Your task to perform on an android device: Open the Play Movies app and select the watchlist tab. Image 0: 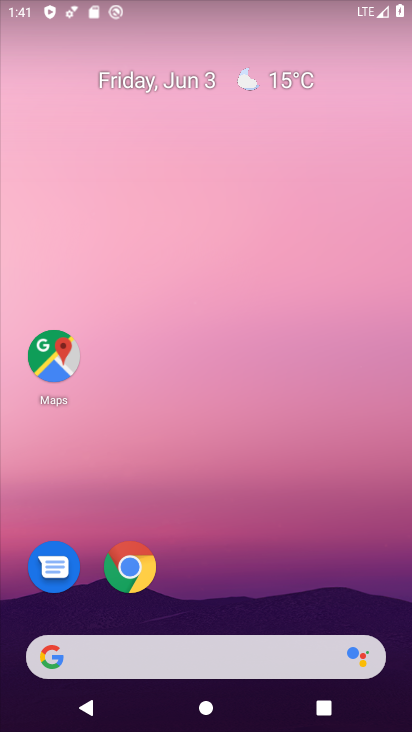
Step 0: drag from (229, 634) to (281, 290)
Your task to perform on an android device: Open the Play Movies app and select the watchlist tab. Image 1: 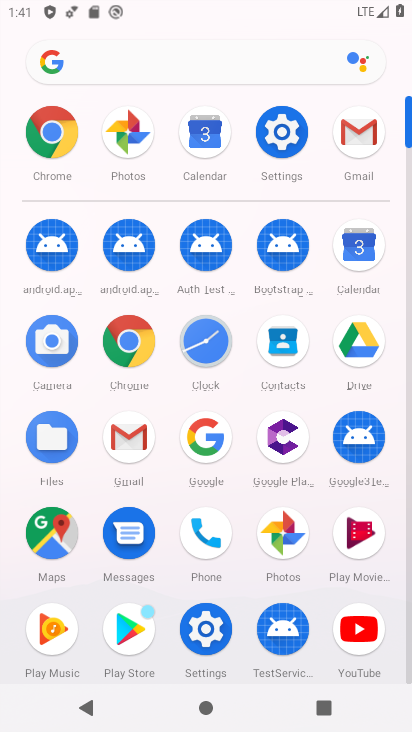
Step 1: click (365, 552)
Your task to perform on an android device: Open the Play Movies app and select the watchlist tab. Image 2: 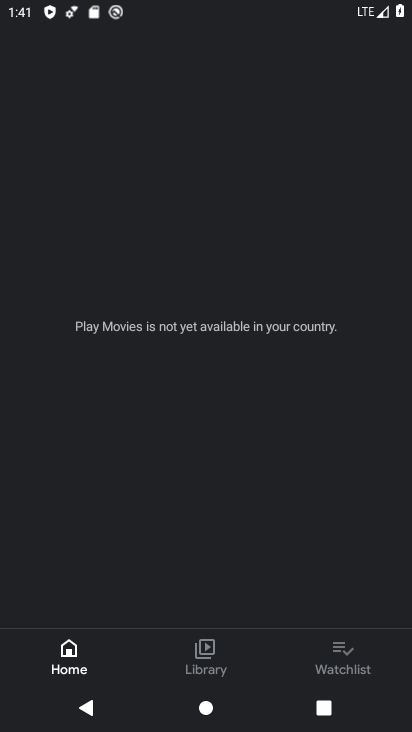
Step 2: click (346, 671)
Your task to perform on an android device: Open the Play Movies app and select the watchlist tab. Image 3: 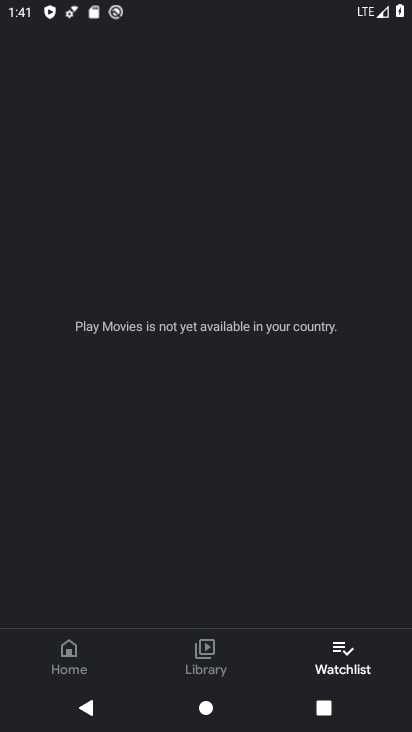
Step 3: task complete